Your task to perform on an android device: Open Google Chrome and open the bookmarks view Image 0: 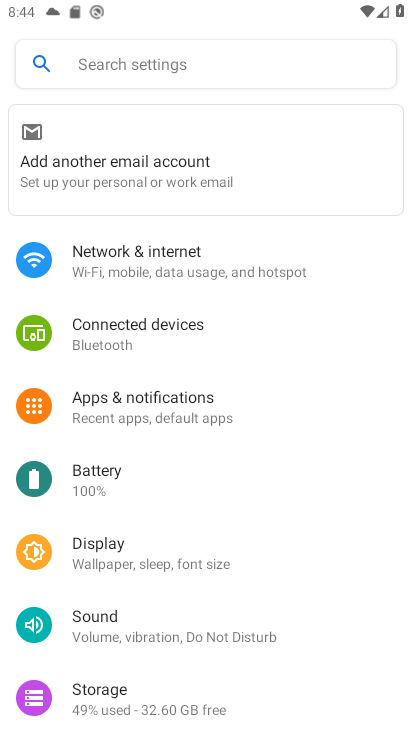
Step 0: press back button
Your task to perform on an android device: Open Google Chrome and open the bookmarks view Image 1: 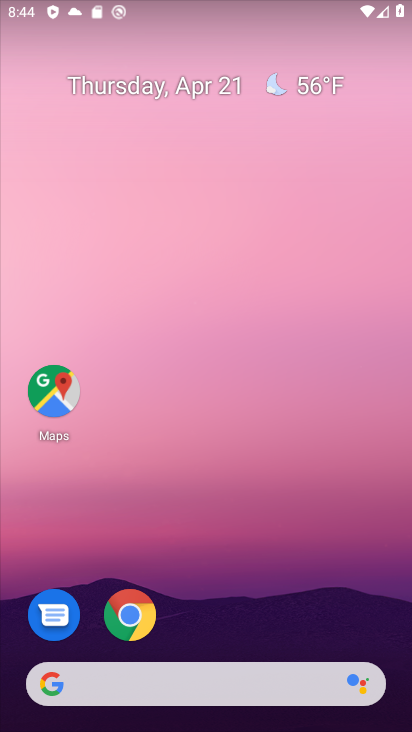
Step 1: click (140, 624)
Your task to perform on an android device: Open Google Chrome and open the bookmarks view Image 2: 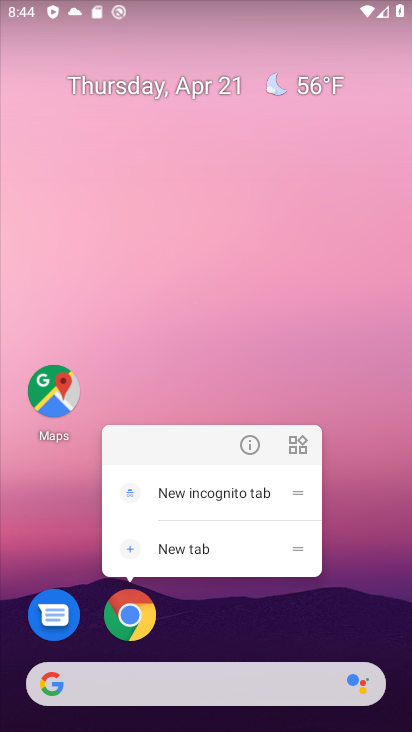
Step 2: click (141, 620)
Your task to perform on an android device: Open Google Chrome and open the bookmarks view Image 3: 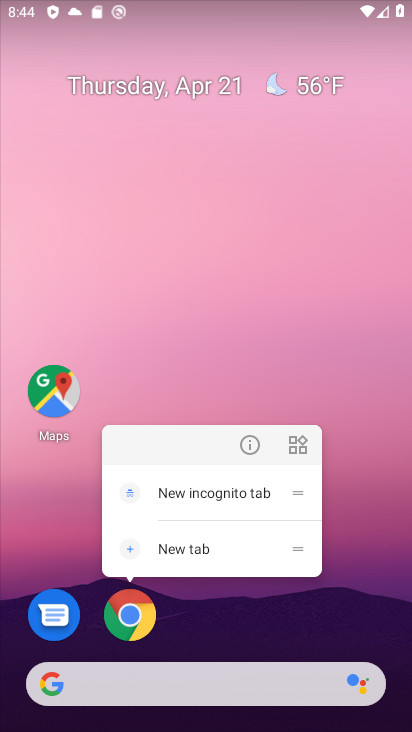
Step 3: click (98, 603)
Your task to perform on an android device: Open Google Chrome and open the bookmarks view Image 4: 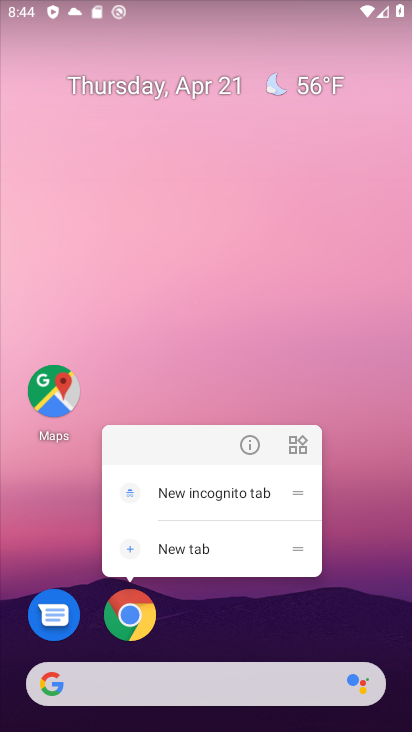
Step 4: click (127, 607)
Your task to perform on an android device: Open Google Chrome and open the bookmarks view Image 5: 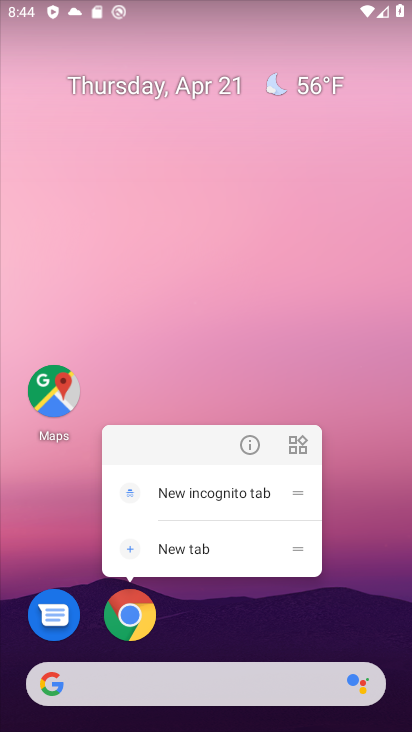
Step 5: click (133, 620)
Your task to perform on an android device: Open Google Chrome and open the bookmarks view Image 6: 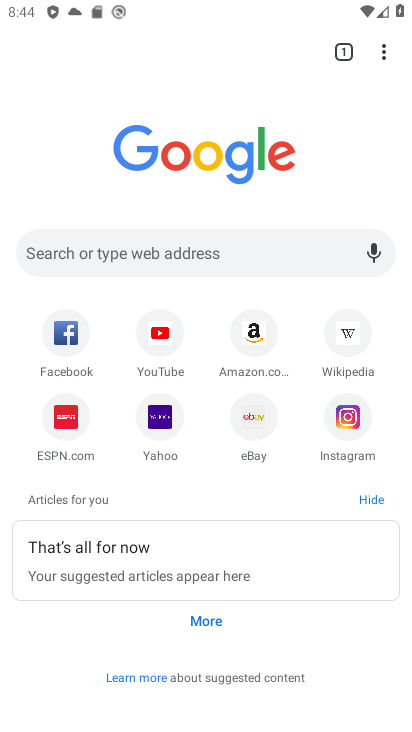
Step 6: click (386, 54)
Your task to perform on an android device: Open Google Chrome and open the bookmarks view Image 7: 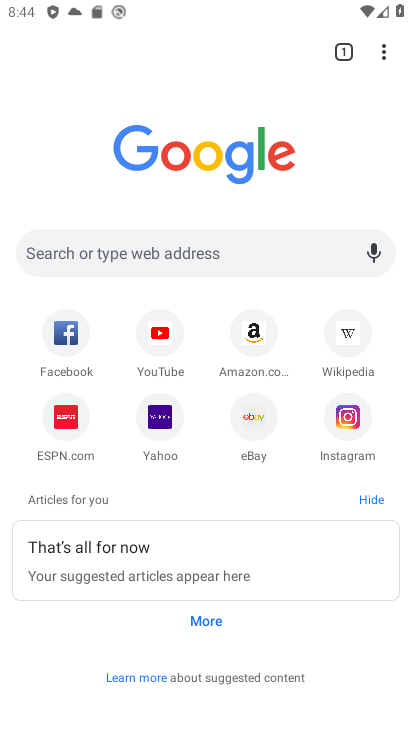
Step 7: click (386, 54)
Your task to perform on an android device: Open Google Chrome and open the bookmarks view Image 8: 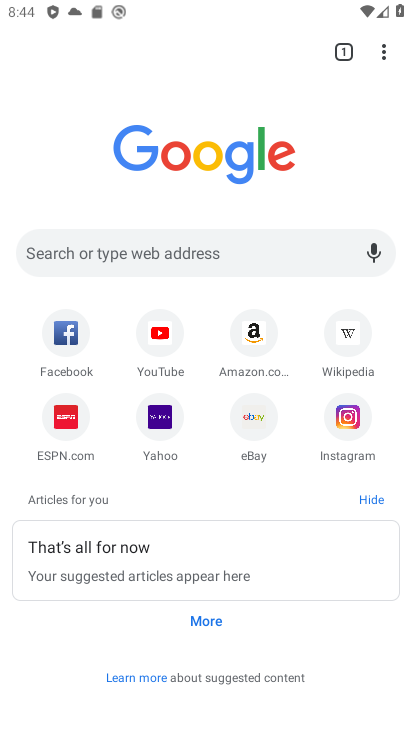
Step 8: click (381, 53)
Your task to perform on an android device: Open Google Chrome and open the bookmarks view Image 9: 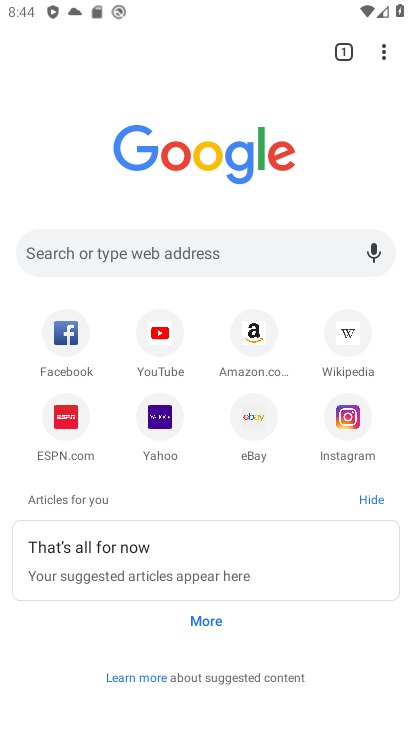
Step 9: click (381, 53)
Your task to perform on an android device: Open Google Chrome and open the bookmarks view Image 10: 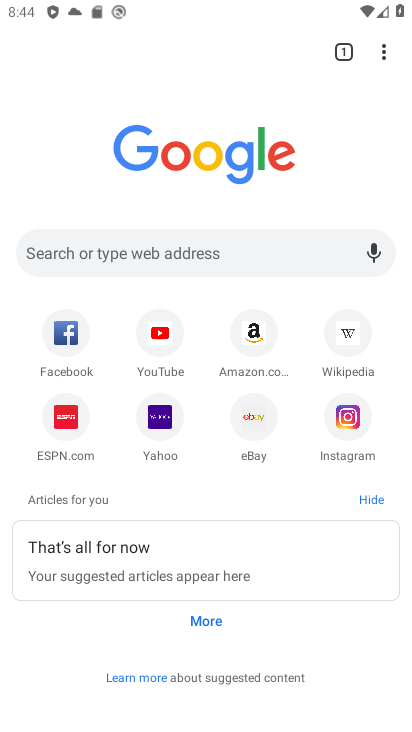
Step 10: click (381, 53)
Your task to perform on an android device: Open Google Chrome and open the bookmarks view Image 11: 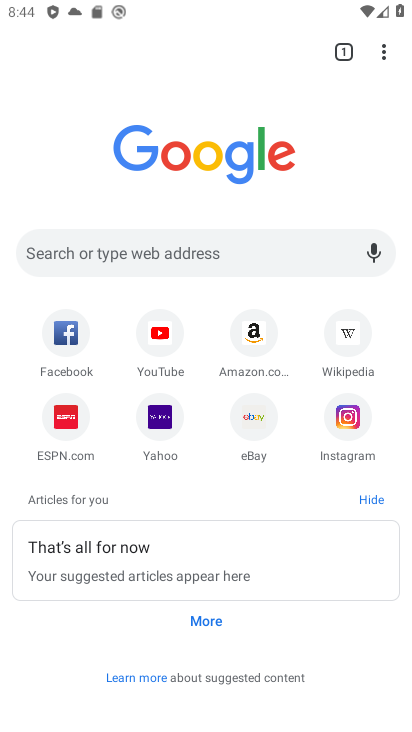
Step 11: click (382, 52)
Your task to perform on an android device: Open Google Chrome and open the bookmarks view Image 12: 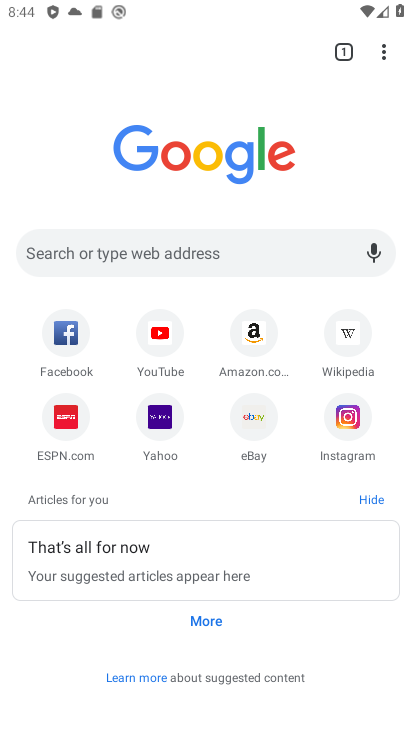
Step 12: click (385, 52)
Your task to perform on an android device: Open Google Chrome and open the bookmarks view Image 13: 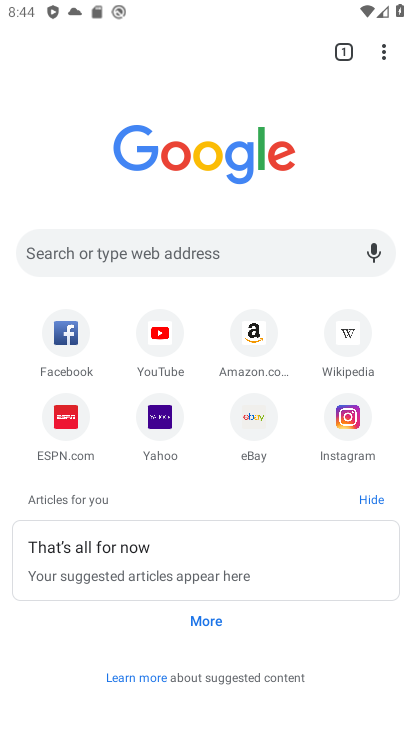
Step 13: click (382, 52)
Your task to perform on an android device: Open Google Chrome and open the bookmarks view Image 14: 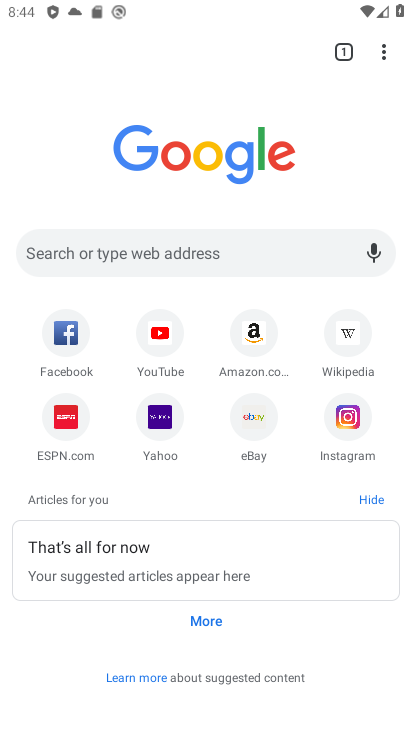
Step 14: click (380, 55)
Your task to perform on an android device: Open Google Chrome and open the bookmarks view Image 15: 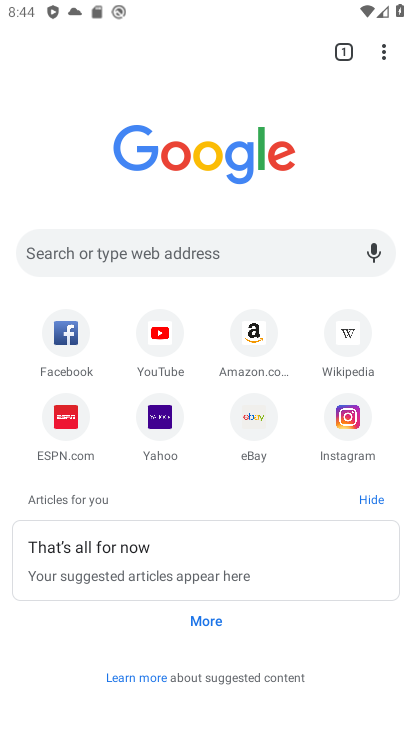
Step 15: click (385, 54)
Your task to perform on an android device: Open Google Chrome and open the bookmarks view Image 16: 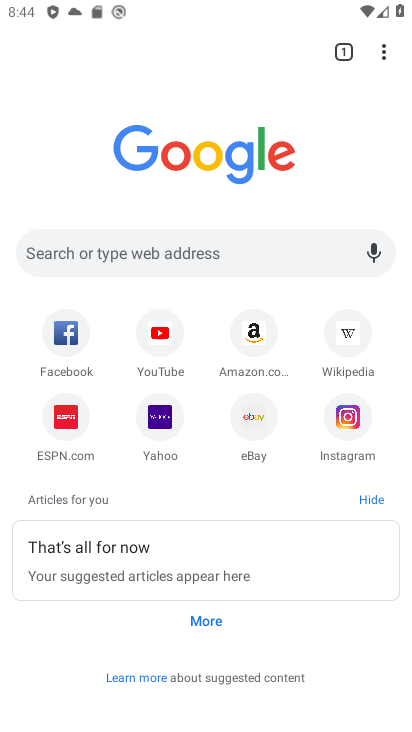
Step 16: click (384, 54)
Your task to perform on an android device: Open Google Chrome and open the bookmarks view Image 17: 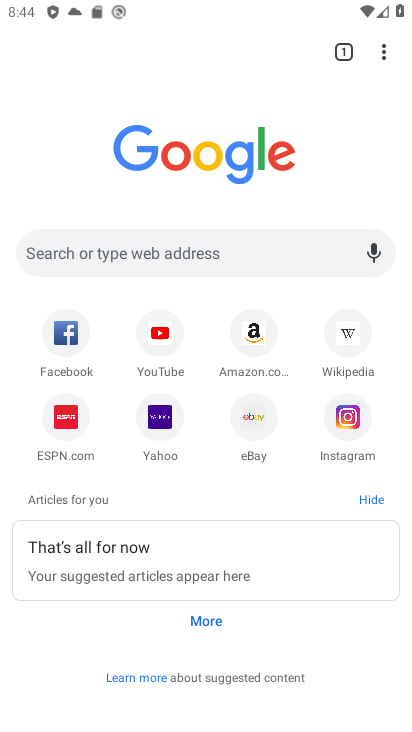
Step 17: click (386, 54)
Your task to perform on an android device: Open Google Chrome and open the bookmarks view Image 18: 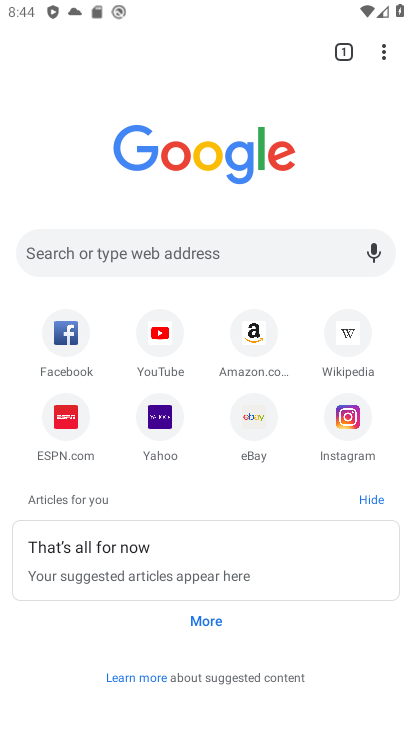
Step 18: click (382, 49)
Your task to perform on an android device: Open Google Chrome and open the bookmarks view Image 19: 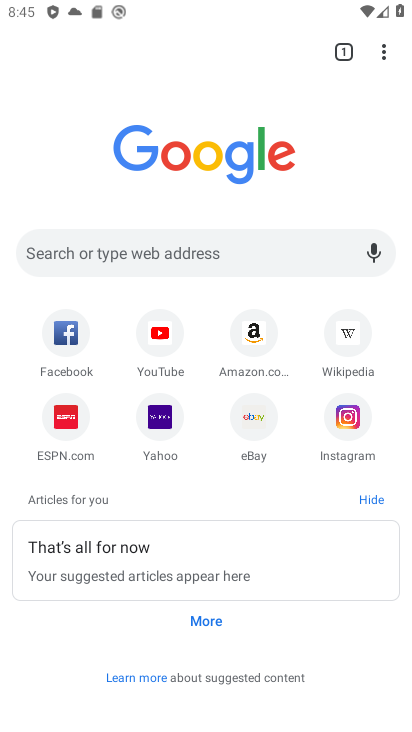
Step 19: click (385, 56)
Your task to perform on an android device: Open Google Chrome and open the bookmarks view Image 20: 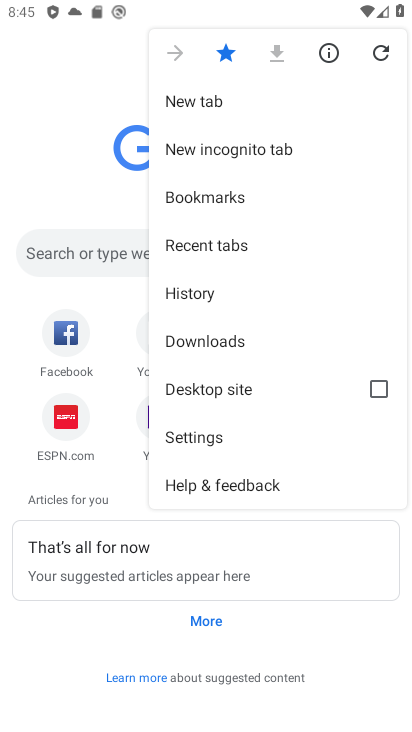
Step 20: click (218, 200)
Your task to perform on an android device: Open Google Chrome and open the bookmarks view Image 21: 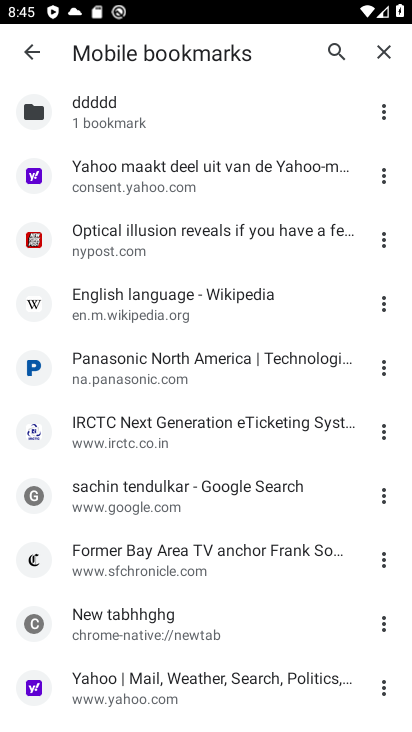
Step 21: task complete